Your task to perform on an android device: Check the weather Image 0: 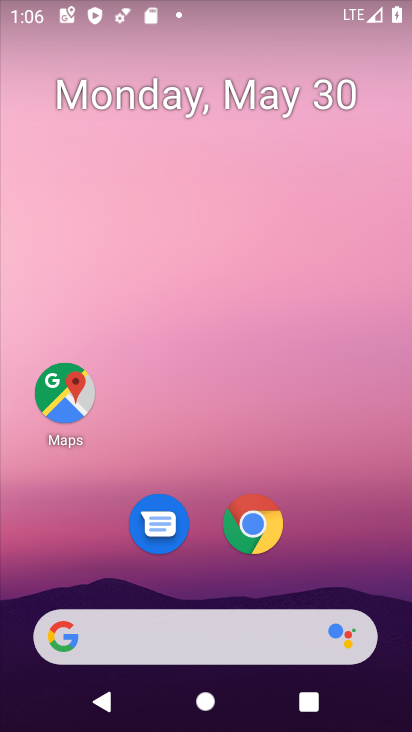
Step 0: click (197, 631)
Your task to perform on an android device: Check the weather Image 1: 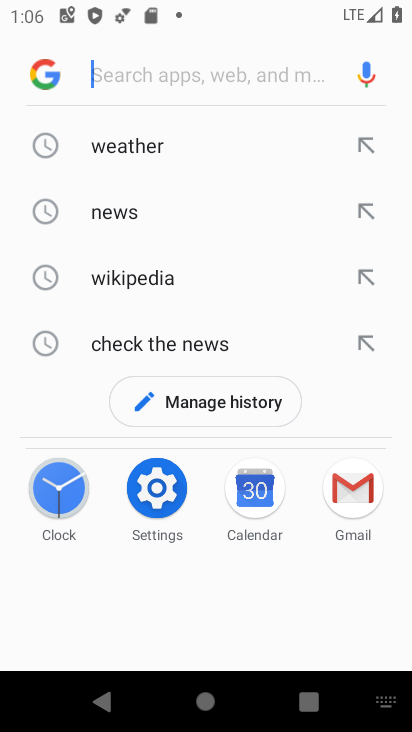
Step 1: click (155, 139)
Your task to perform on an android device: Check the weather Image 2: 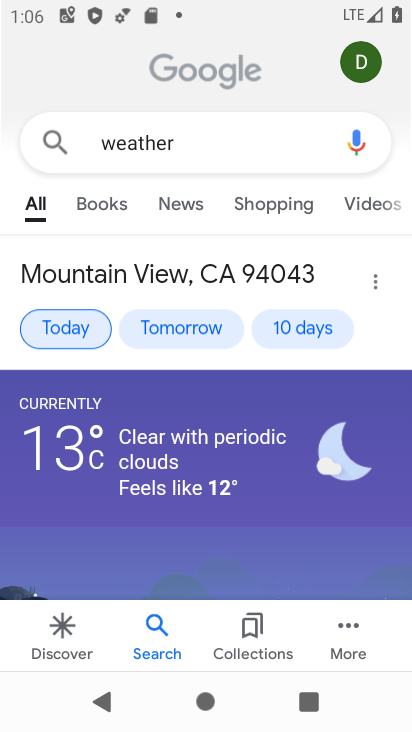
Step 2: click (80, 323)
Your task to perform on an android device: Check the weather Image 3: 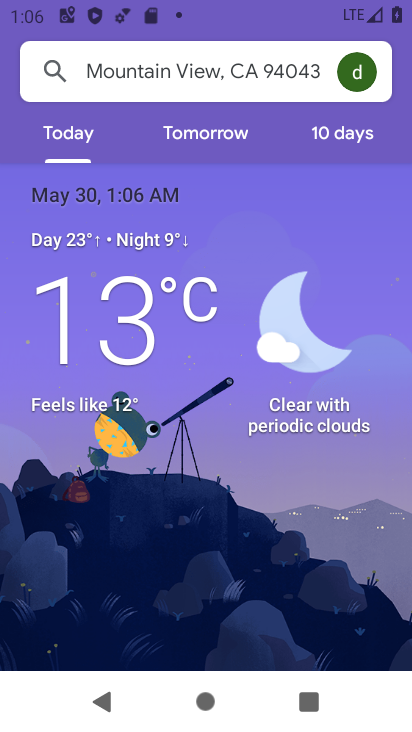
Step 3: task complete